Your task to perform on an android device: Show me popular games on the Play Store Image 0: 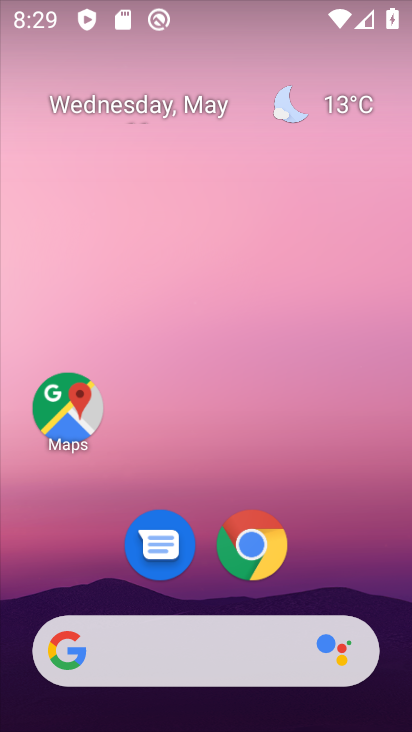
Step 0: drag from (331, 517) to (237, 10)
Your task to perform on an android device: Show me popular games on the Play Store Image 1: 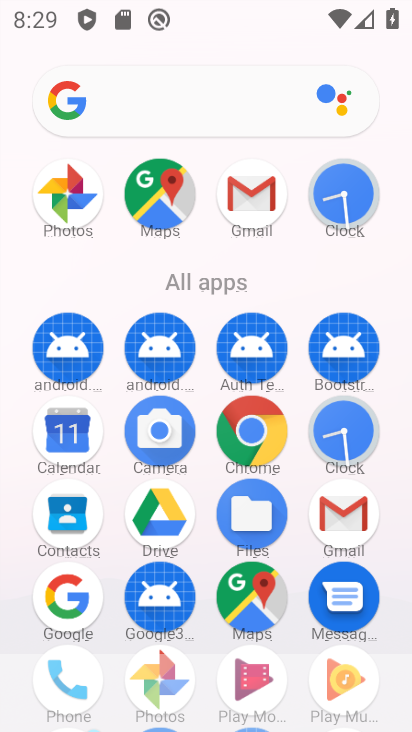
Step 1: drag from (11, 524) to (0, 245)
Your task to perform on an android device: Show me popular games on the Play Store Image 2: 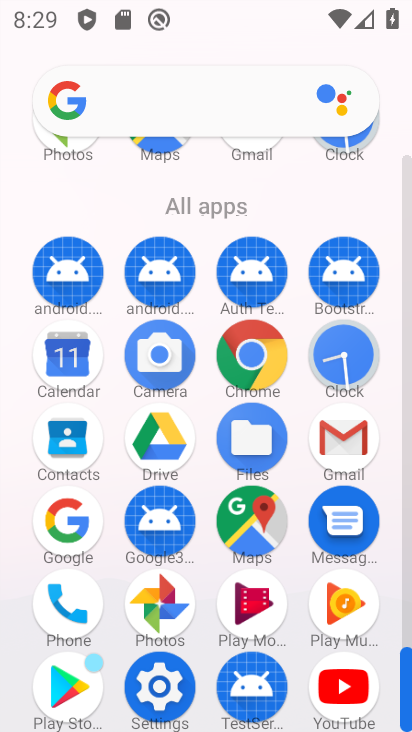
Step 2: click (68, 670)
Your task to perform on an android device: Show me popular games on the Play Store Image 3: 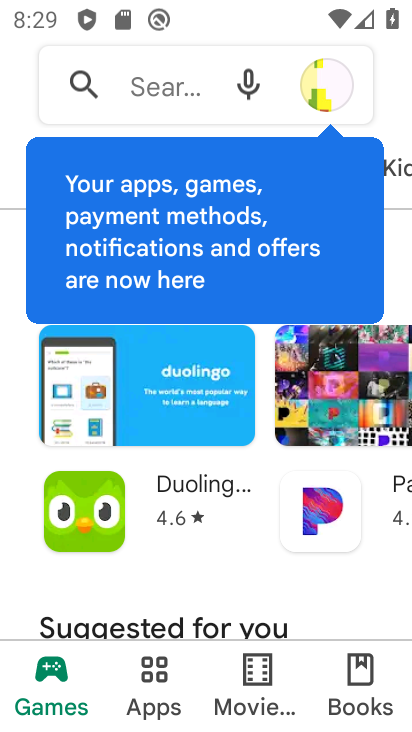
Step 3: task complete